Your task to perform on an android device: find photos in the google photos app Image 0: 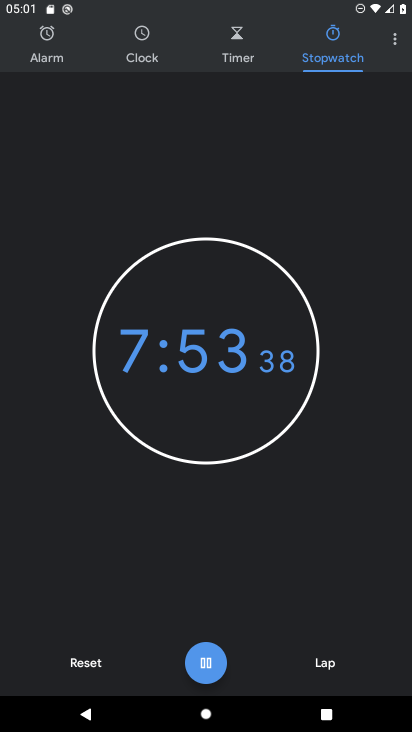
Step 0: press home button
Your task to perform on an android device: find photos in the google photos app Image 1: 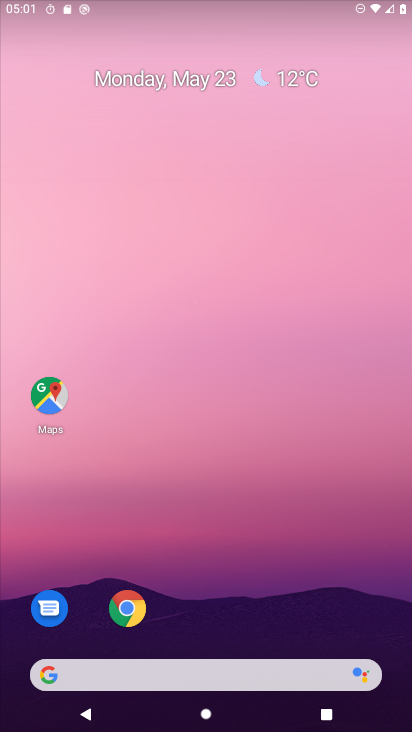
Step 1: drag from (278, 586) to (150, 12)
Your task to perform on an android device: find photos in the google photos app Image 2: 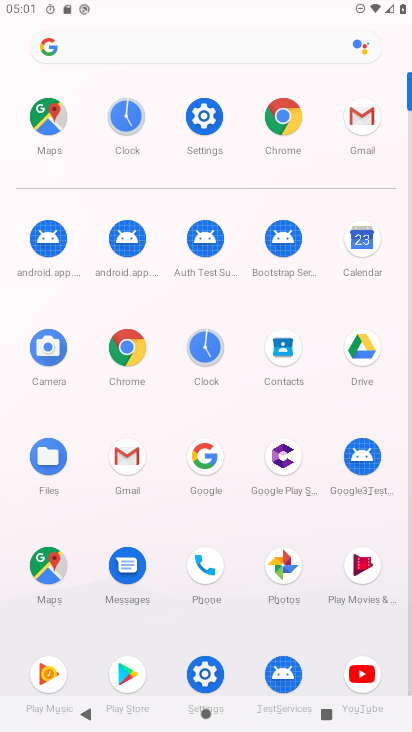
Step 2: click (284, 542)
Your task to perform on an android device: find photos in the google photos app Image 3: 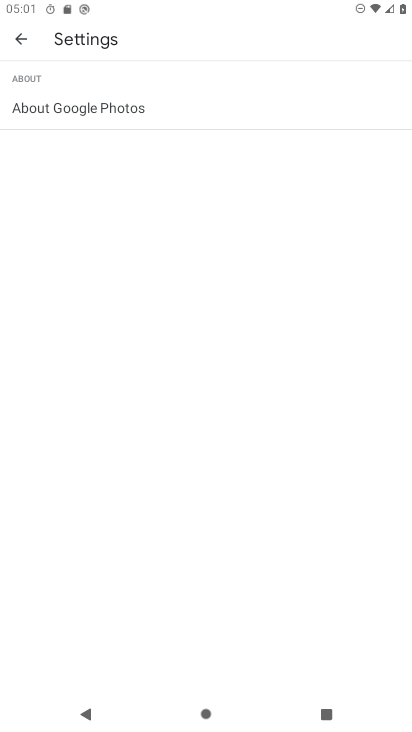
Step 3: click (23, 40)
Your task to perform on an android device: find photos in the google photos app Image 4: 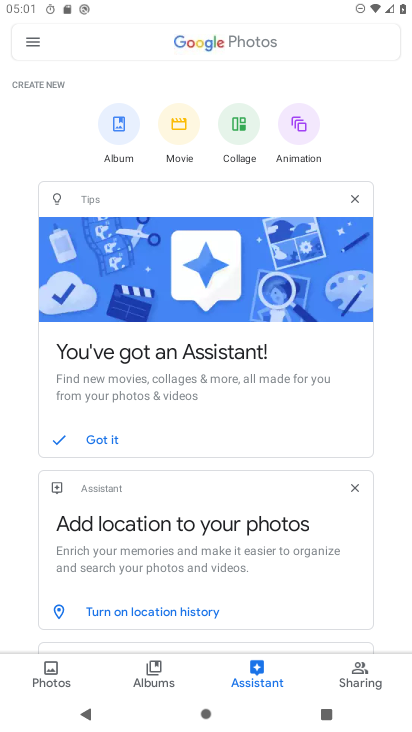
Step 4: click (46, 684)
Your task to perform on an android device: find photos in the google photos app Image 5: 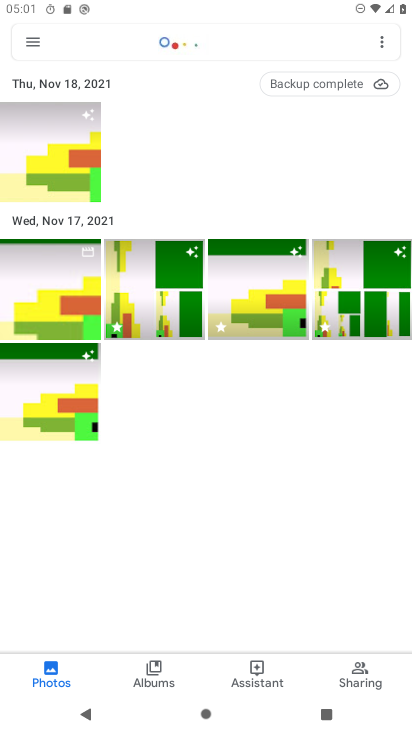
Step 5: task complete